Your task to perform on an android device: What's the weather going to be tomorrow? Image 0: 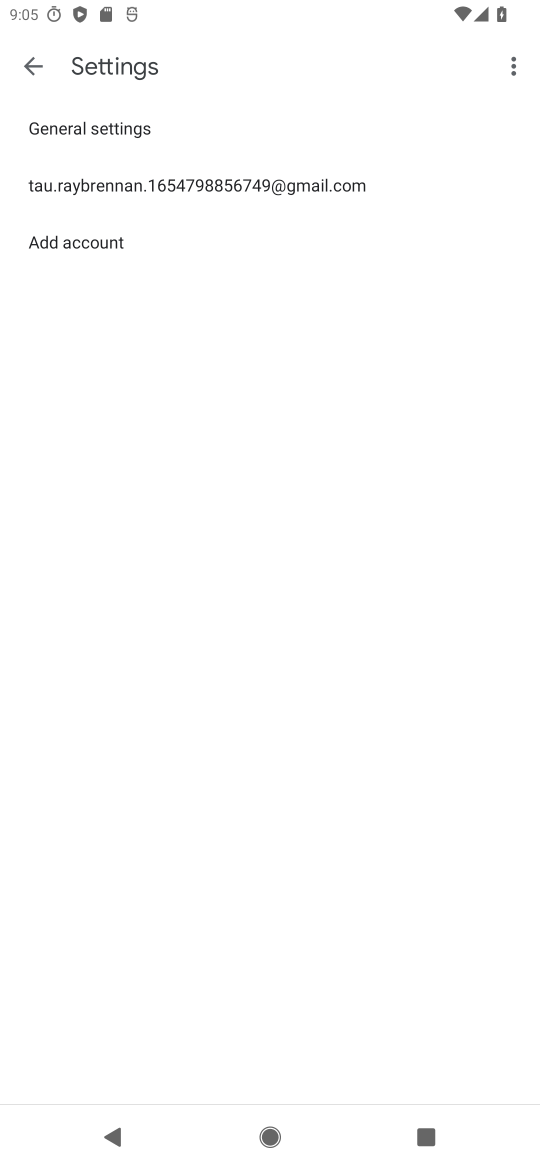
Step 0: press home button
Your task to perform on an android device: What's the weather going to be tomorrow? Image 1: 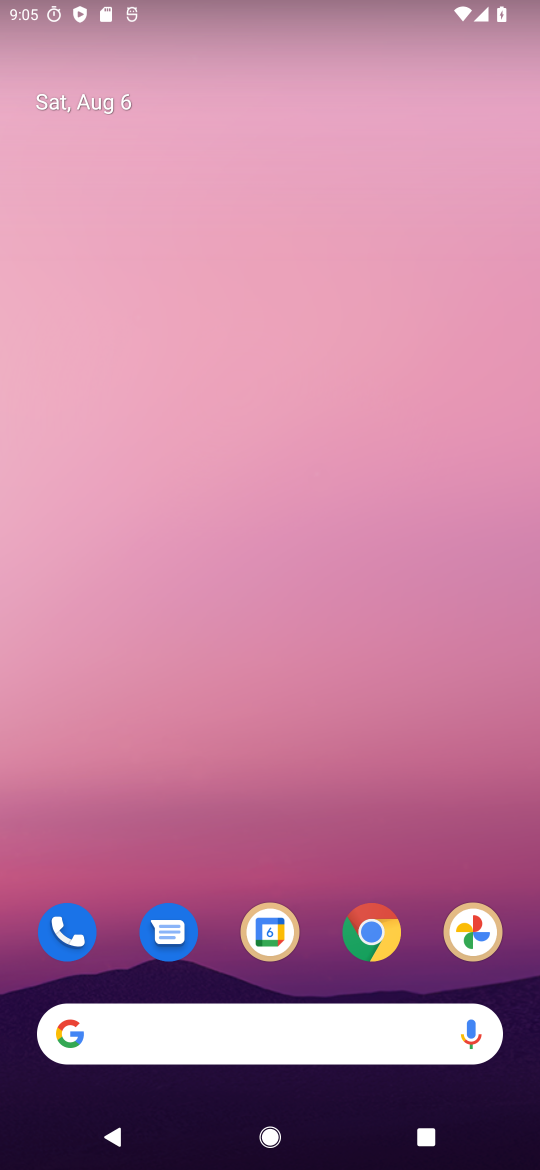
Step 1: click (211, 1033)
Your task to perform on an android device: What's the weather going to be tomorrow? Image 2: 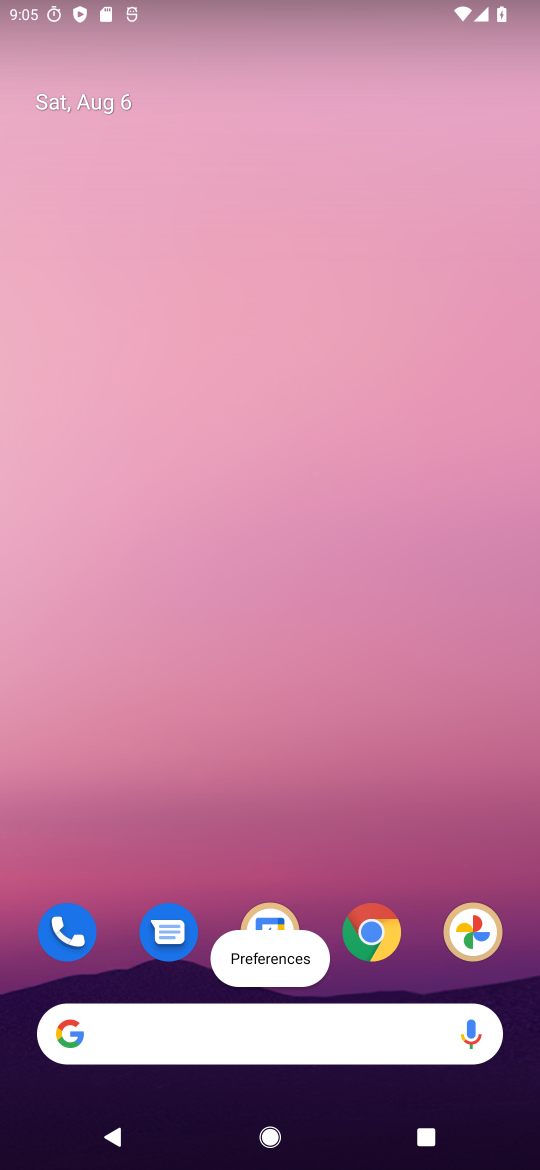
Step 2: click (195, 1033)
Your task to perform on an android device: What's the weather going to be tomorrow? Image 3: 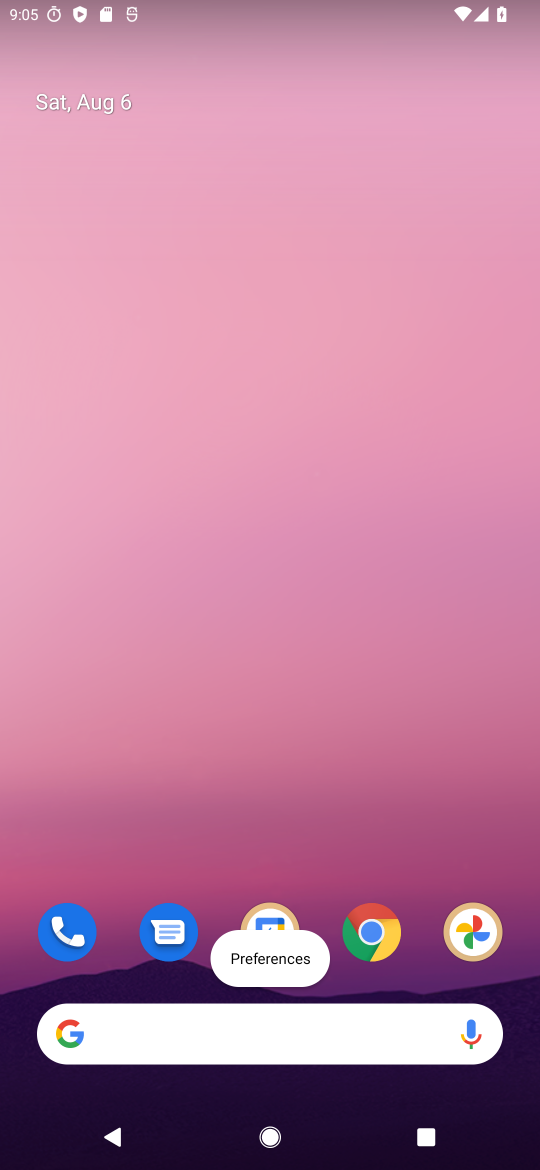
Step 3: click (195, 1043)
Your task to perform on an android device: What's the weather going to be tomorrow? Image 4: 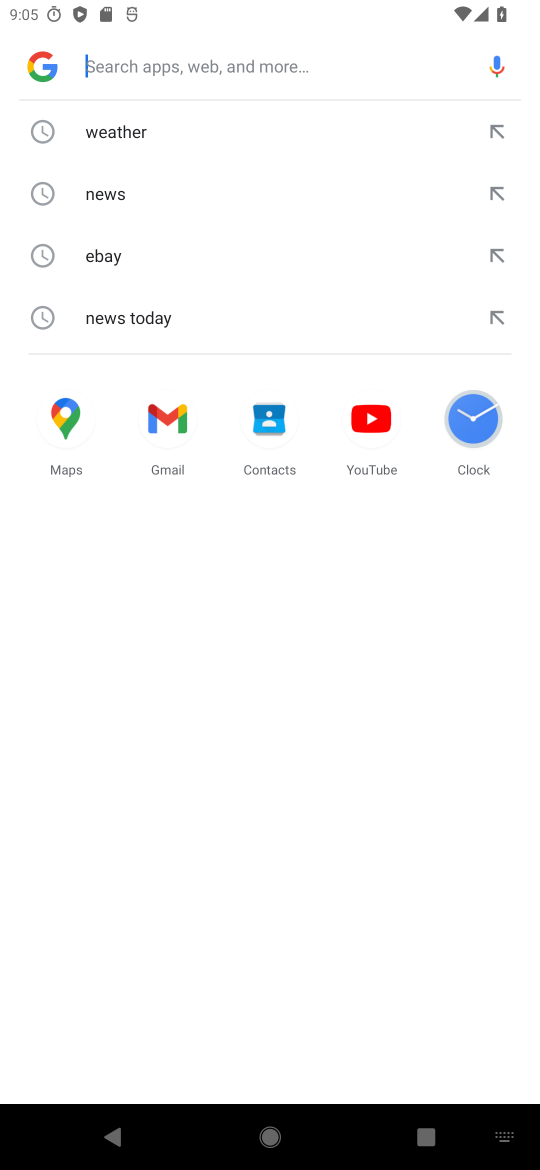
Step 4: click (127, 122)
Your task to perform on an android device: What's the weather going to be tomorrow? Image 5: 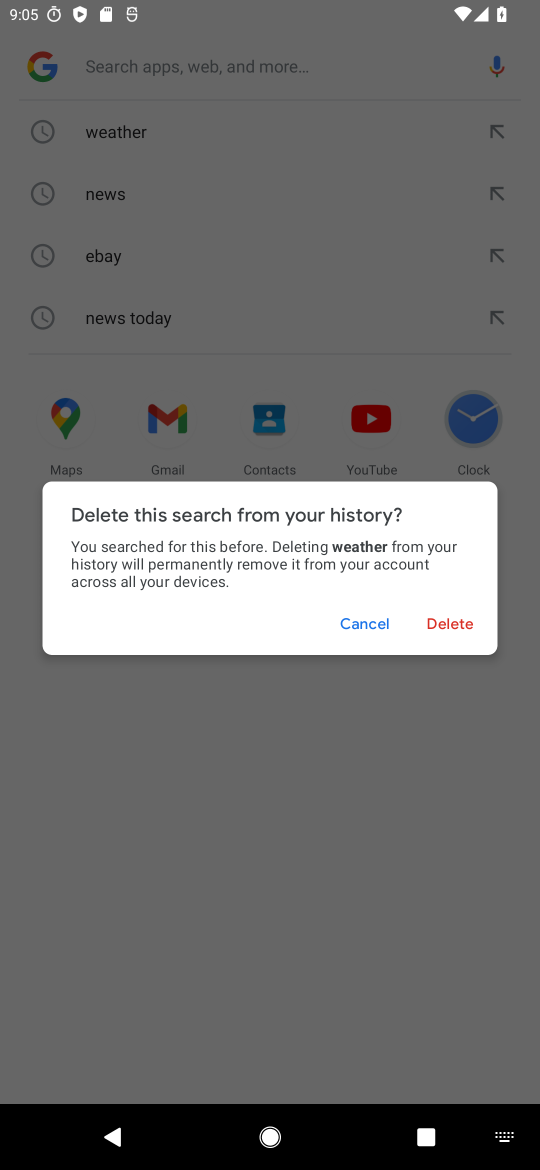
Step 5: click (350, 622)
Your task to perform on an android device: What's the weather going to be tomorrow? Image 6: 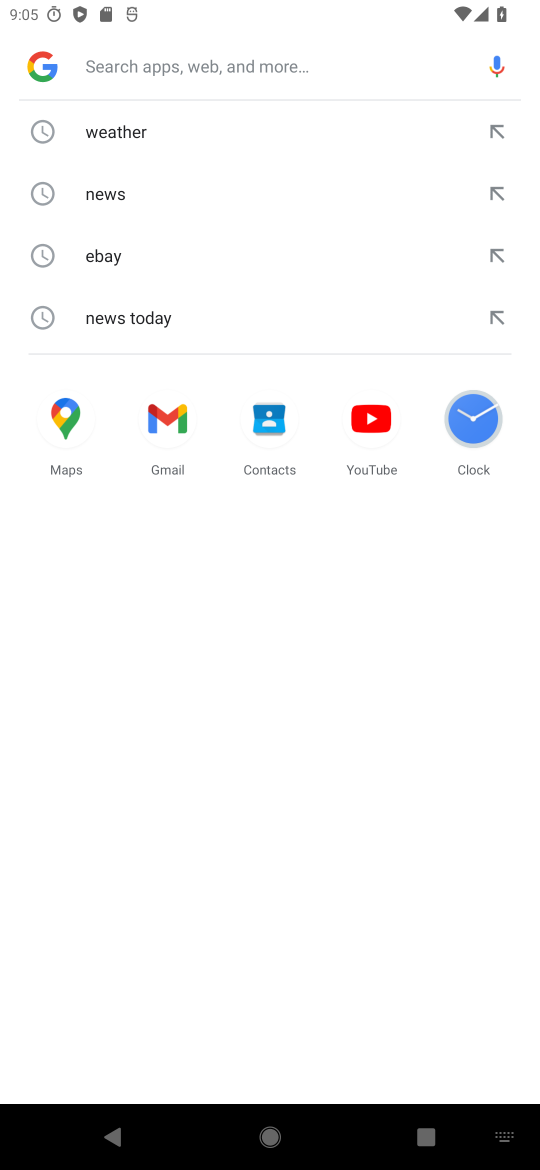
Step 6: click (118, 122)
Your task to perform on an android device: What's the weather going to be tomorrow? Image 7: 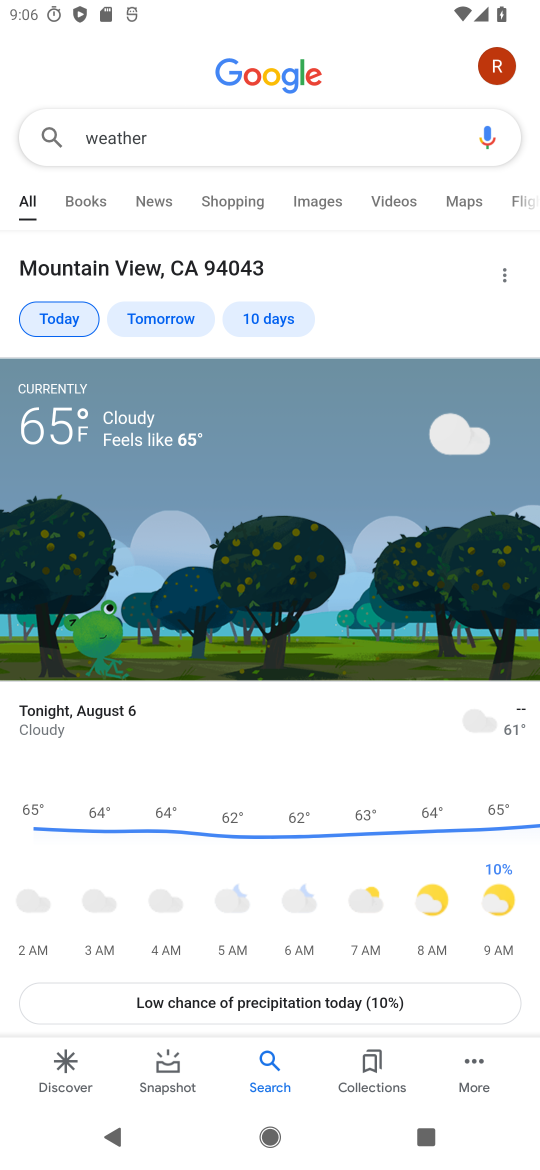
Step 7: click (165, 310)
Your task to perform on an android device: What's the weather going to be tomorrow? Image 8: 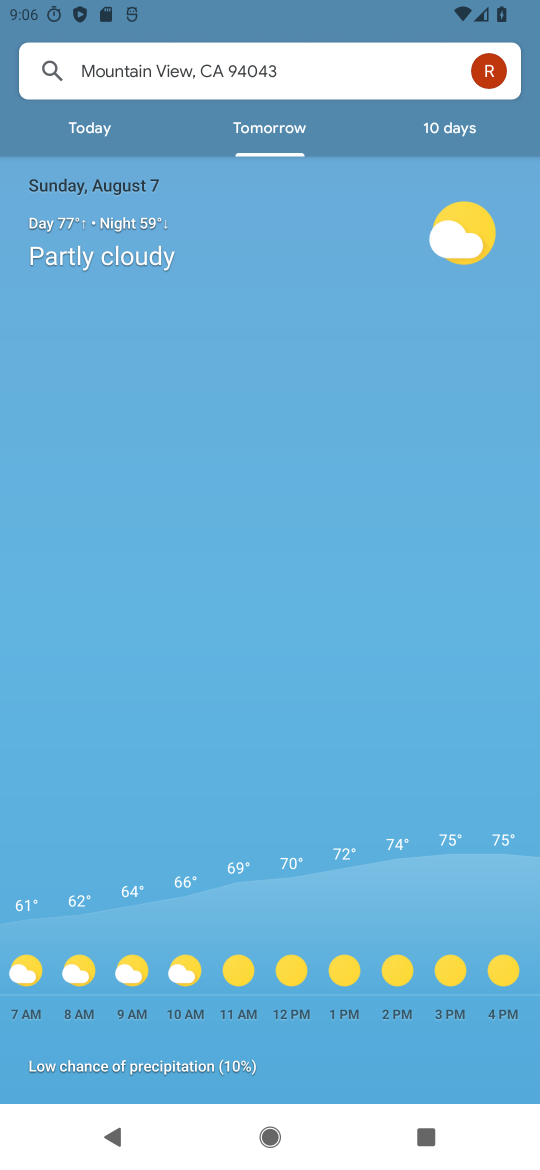
Step 8: task complete